Your task to perform on an android device: set the stopwatch Image 0: 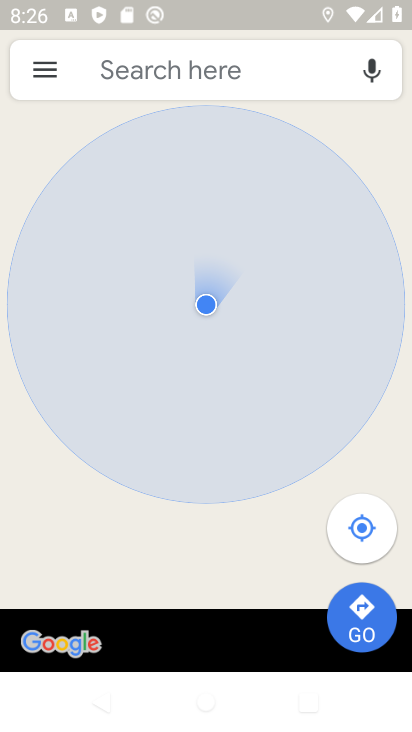
Step 0: press home button
Your task to perform on an android device: set the stopwatch Image 1: 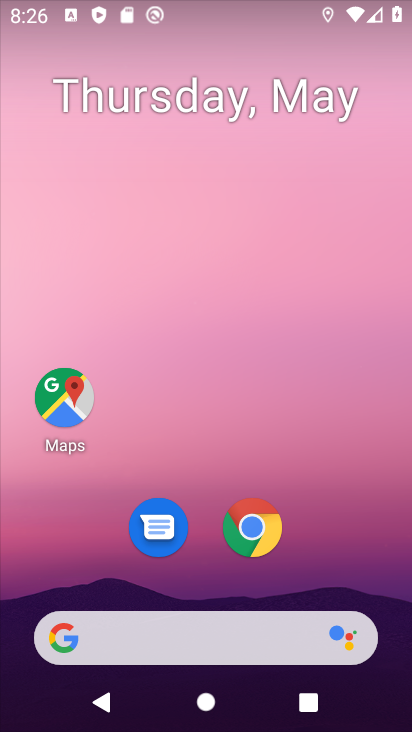
Step 1: drag from (90, 537) to (282, 158)
Your task to perform on an android device: set the stopwatch Image 2: 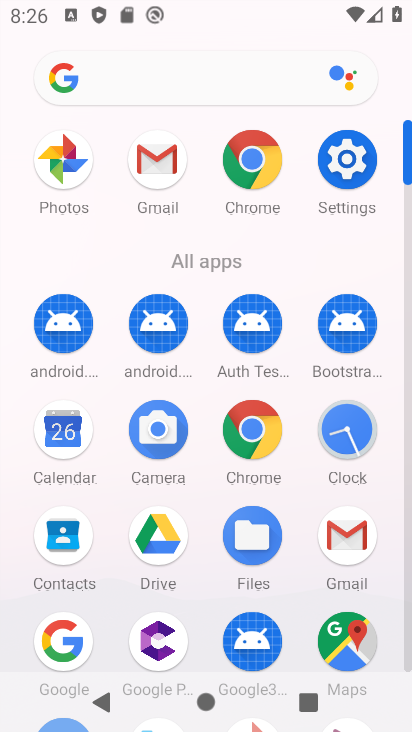
Step 2: click (351, 442)
Your task to perform on an android device: set the stopwatch Image 3: 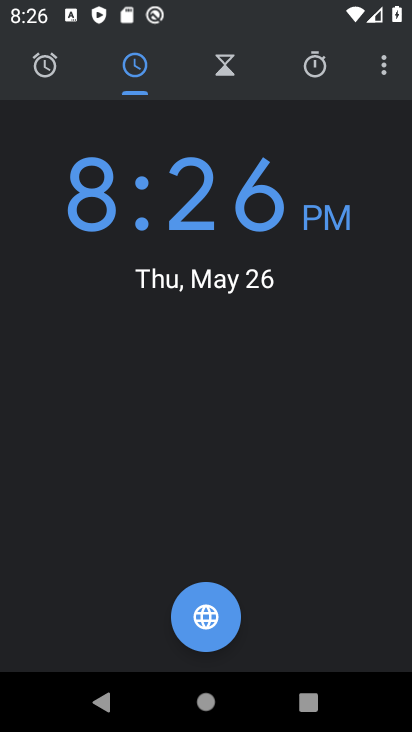
Step 3: click (313, 61)
Your task to perform on an android device: set the stopwatch Image 4: 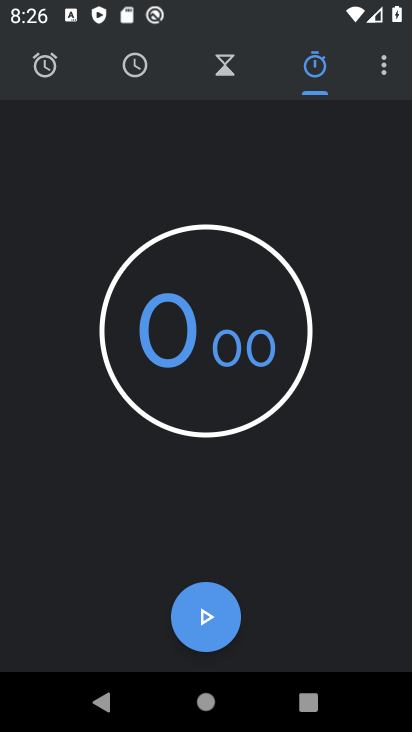
Step 4: click (205, 615)
Your task to perform on an android device: set the stopwatch Image 5: 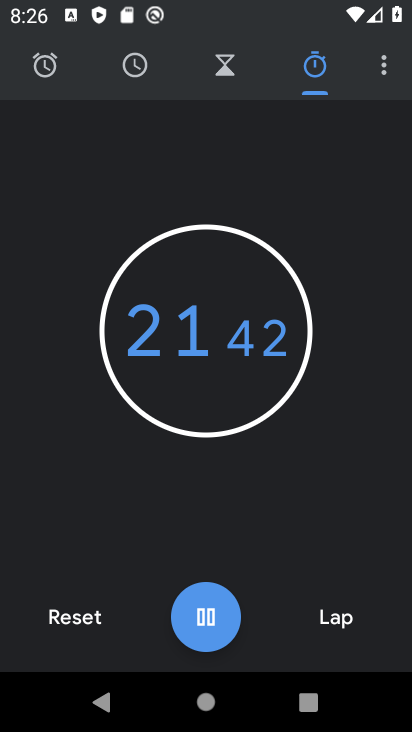
Step 5: task complete